Your task to perform on an android device: toggle show notifications on the lock screen Image 0: 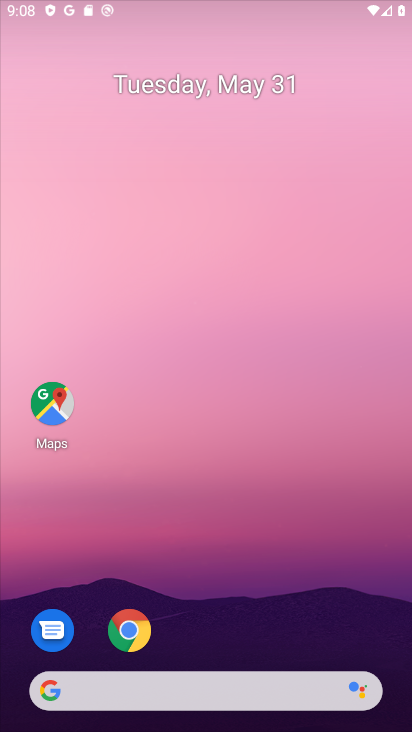
Step 0: drag from (157, 726) to (113, 123)
Your task to perform on an android device: toggle show notifications on the lock screen Image 1: 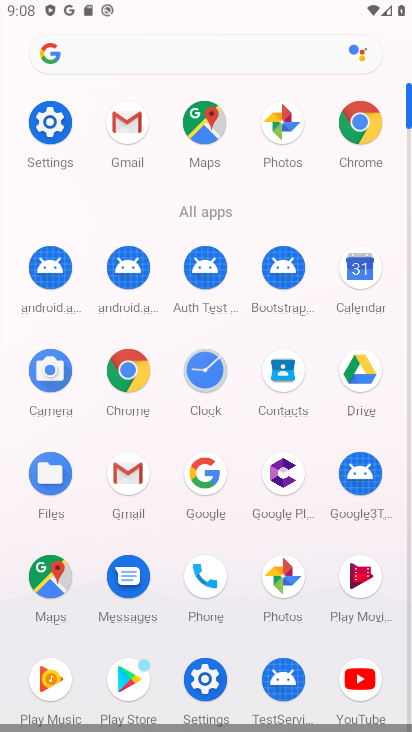
Step 1: click (188, 667)
Your task to perform on an android device: toggle show notifications on the lock screen Image 2: 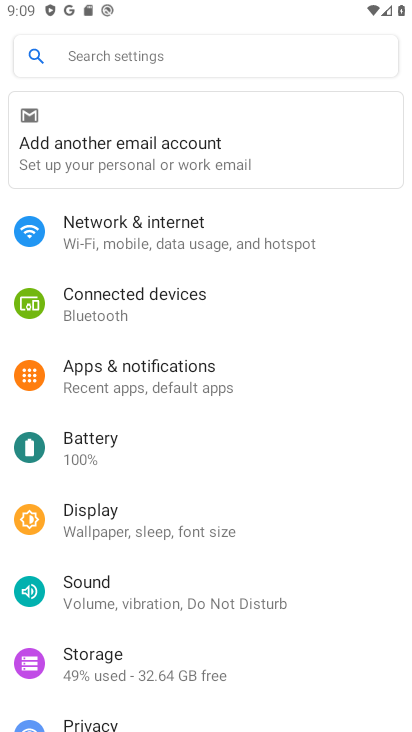
Step 2: click (178, 378)
Your task to perform on an android device: toggle show notifications on the lock screen Image 3: 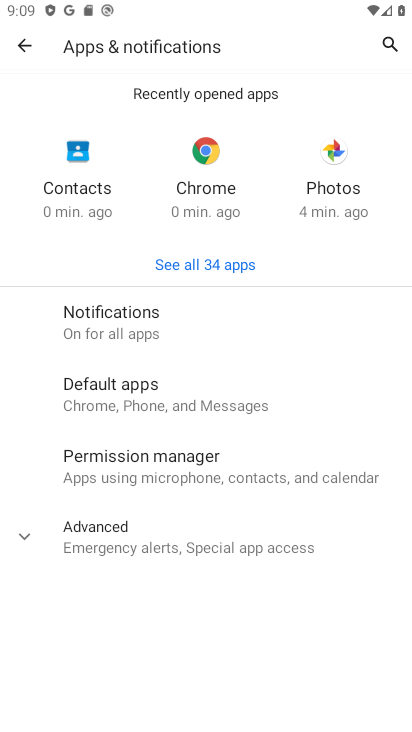
Step 3: click (128, 323)
Your task to perform on an android device: toggle show notifications on the lock screen Image 4: 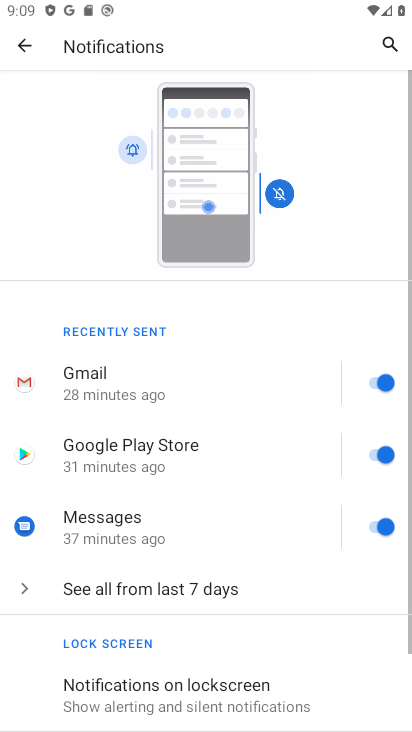
Step 4: drag from (200, 641) to (190, 217)
Your task to perform on an android device: toggle show notifications on the lock screen Image 5: 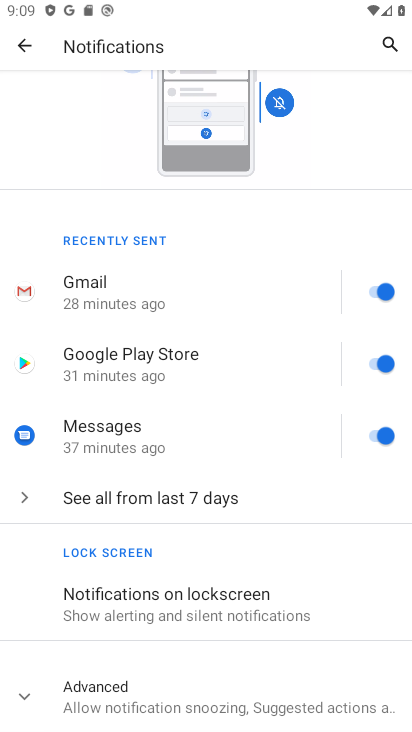
Step 5: click (224, 586)
Your task to perform on an android device: toggle show notifications on the lock screen Image 6: 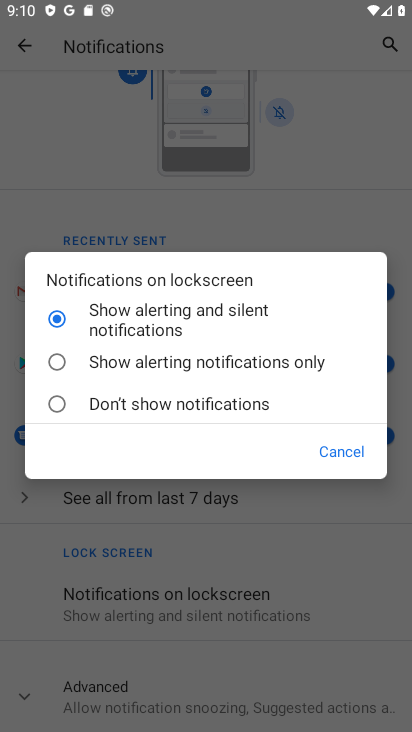
Step 6: task complete